Your task to perform on an android device: Open Google Image 0: 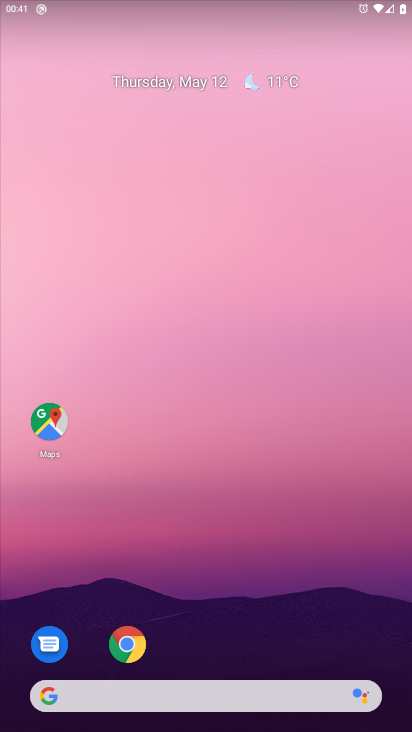
Step 0: drag from (207, 645) to (222, 66)
Your task to perform on an android device: Open Google Image 1: 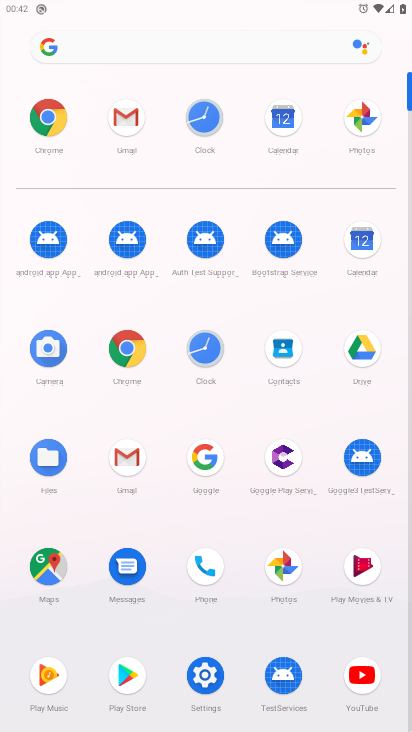
Step 1: click (200, 448)
Your task to perform on an android device: Open Google Image 2: 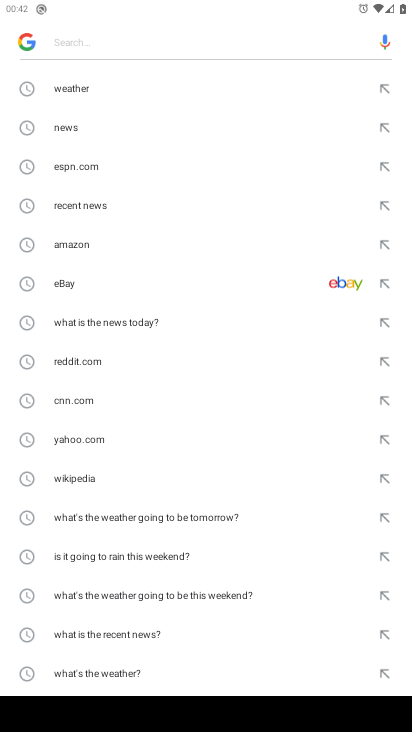
Step 2: task complete